Your task to perform on an android device: install app "Grab" Image 0: 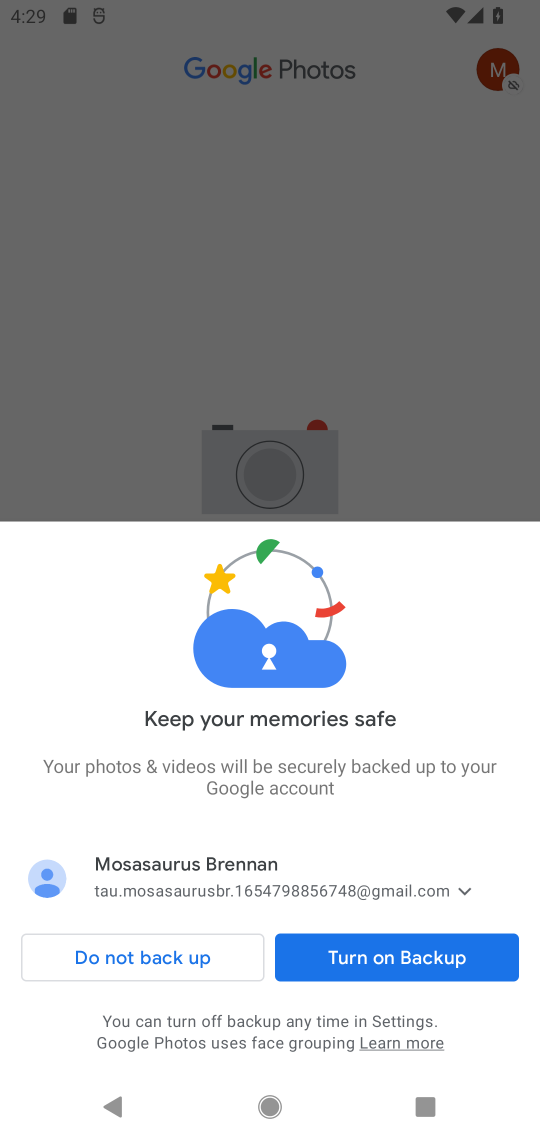
Step 0: press home button
Your task to perform on an android device: install app "Grab" Image 1: 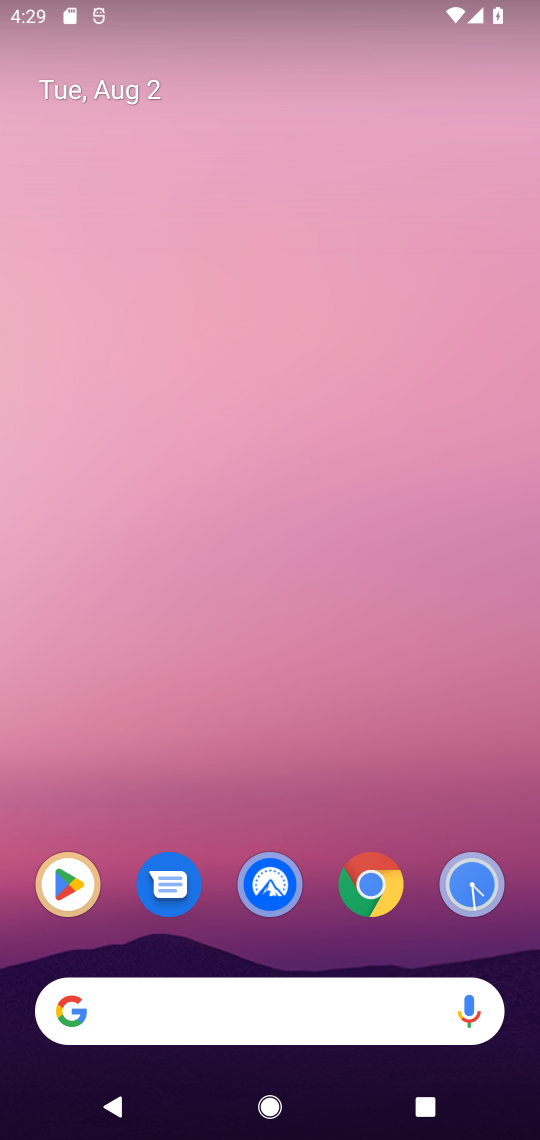
Step 1: drag from (386, 814) to (376, 232)
Your task to perform on an android device: install app "Grab" Image 2: 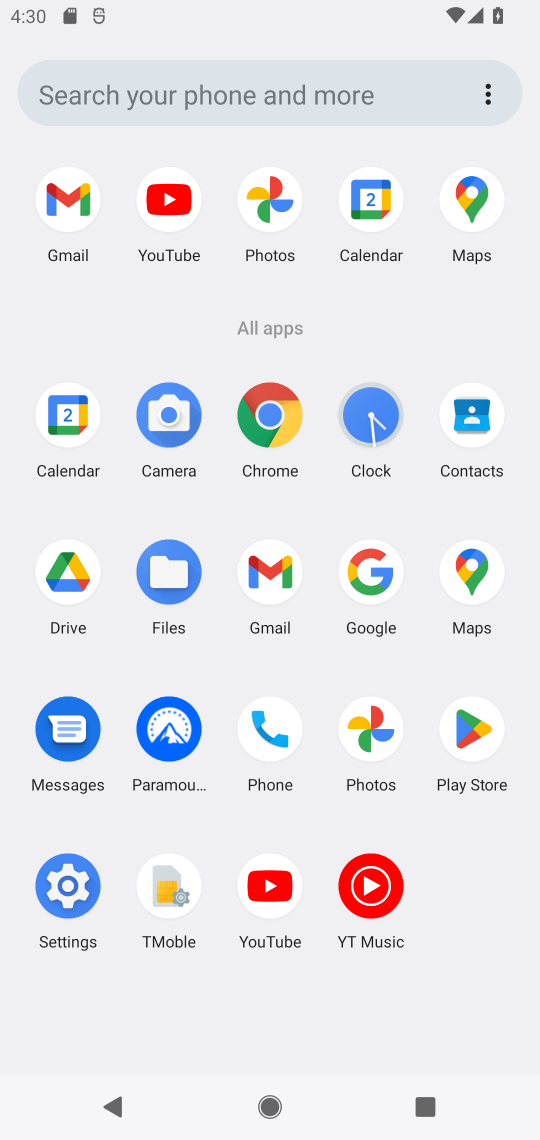
Step 2: click (472, 740)
Your task to perform on an android device: install app "Grab" Image 3: 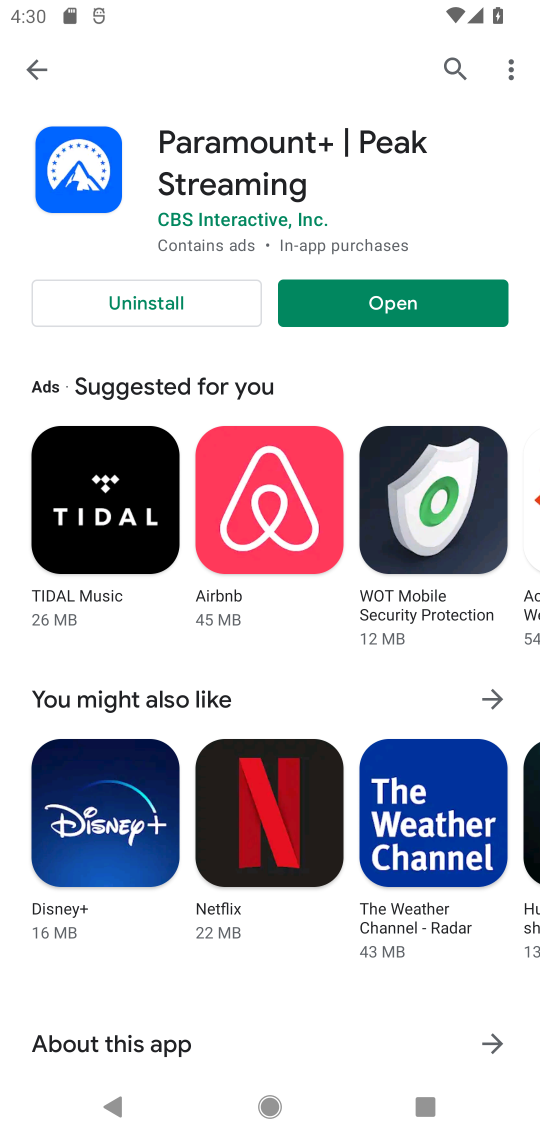
Step 3: click (442, 85)
Your task to perform on an android device: install app "Grab" Image 4: 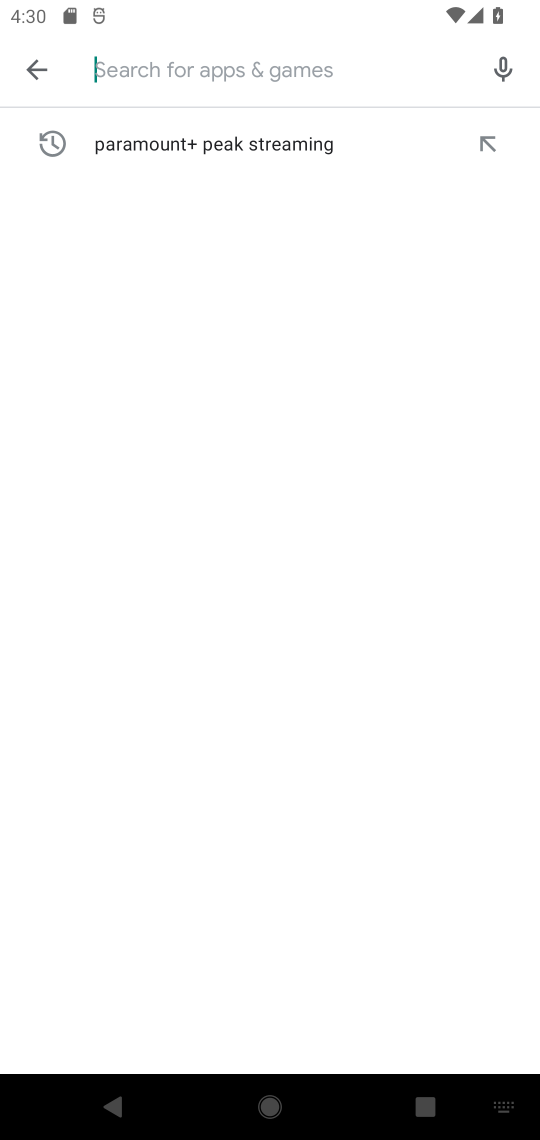
Step 4: type "Grab"
Your task to perform on an android device: install app "Grab" Image 5: 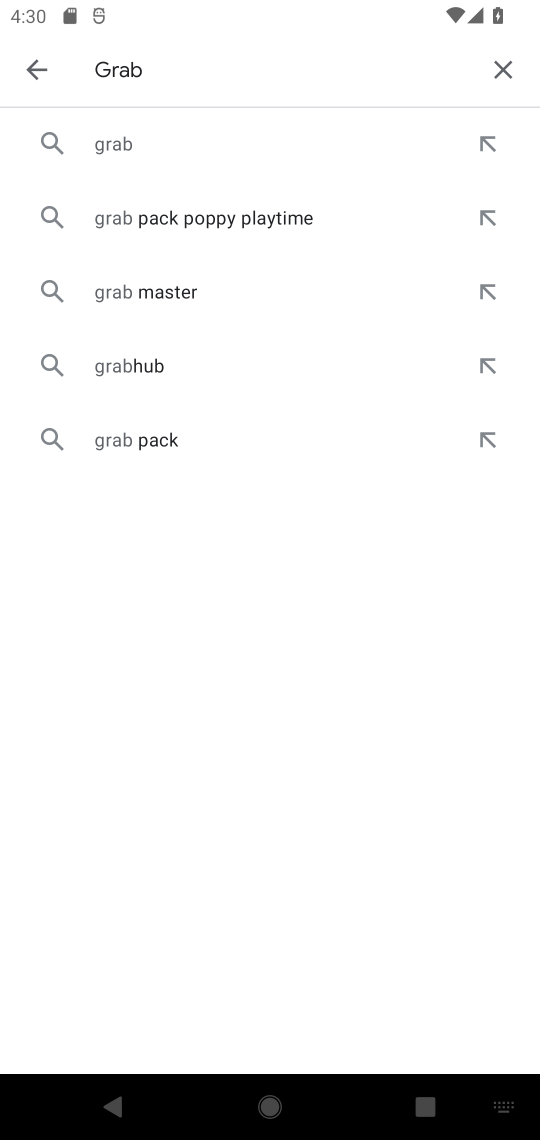
Step 5: click (129, 147)
Your task to perform on an android device: install app "Grab" Image 6: 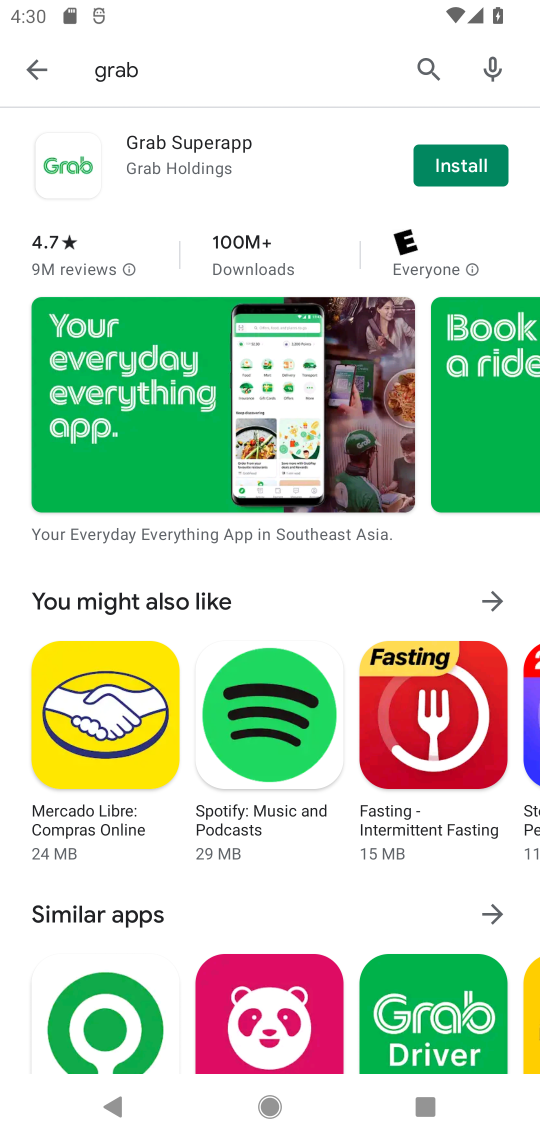
Step 6: click (441, 168)
Your task to perform on an android device: install app "Grab" Image 7: 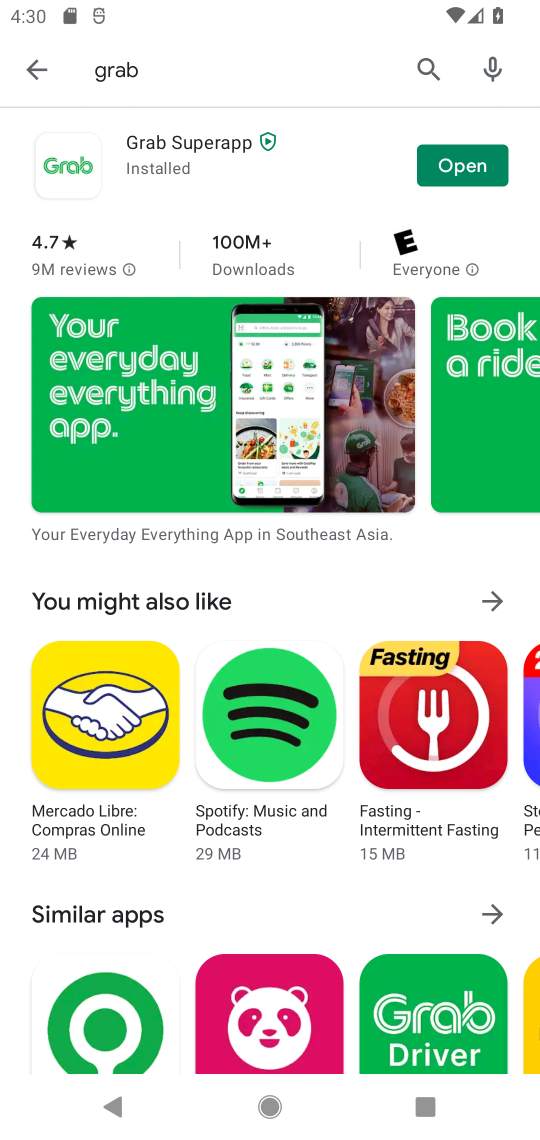
Step 7: task complete